Your task to perform on an android device: Search for a tv stand on Ikea Image 0: 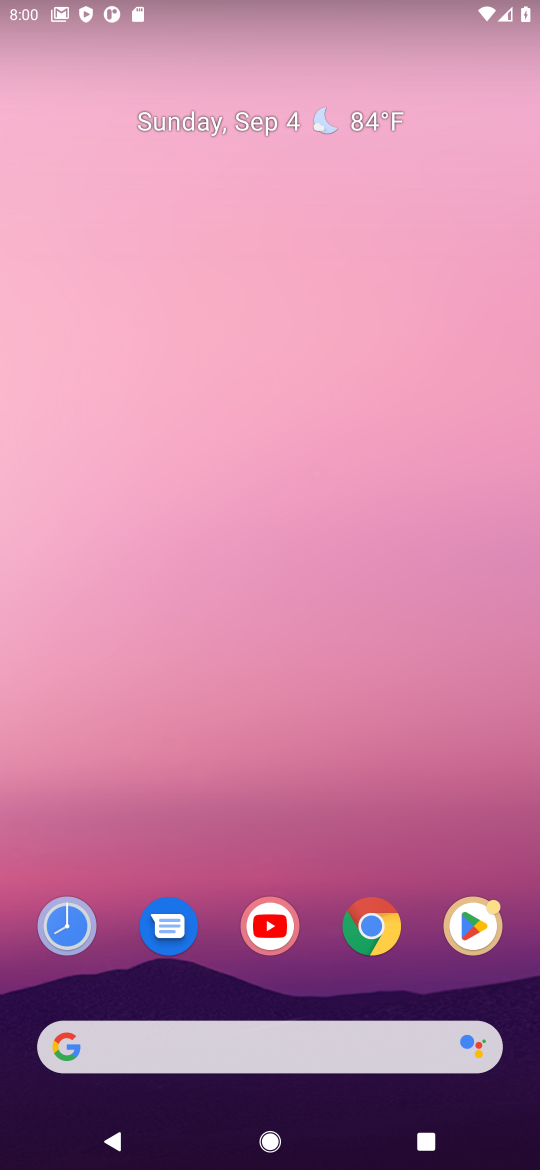
Step 0: click (62, 1037)
Your task to perform on an android device: Search for a tv stand on Ikea Image 1: 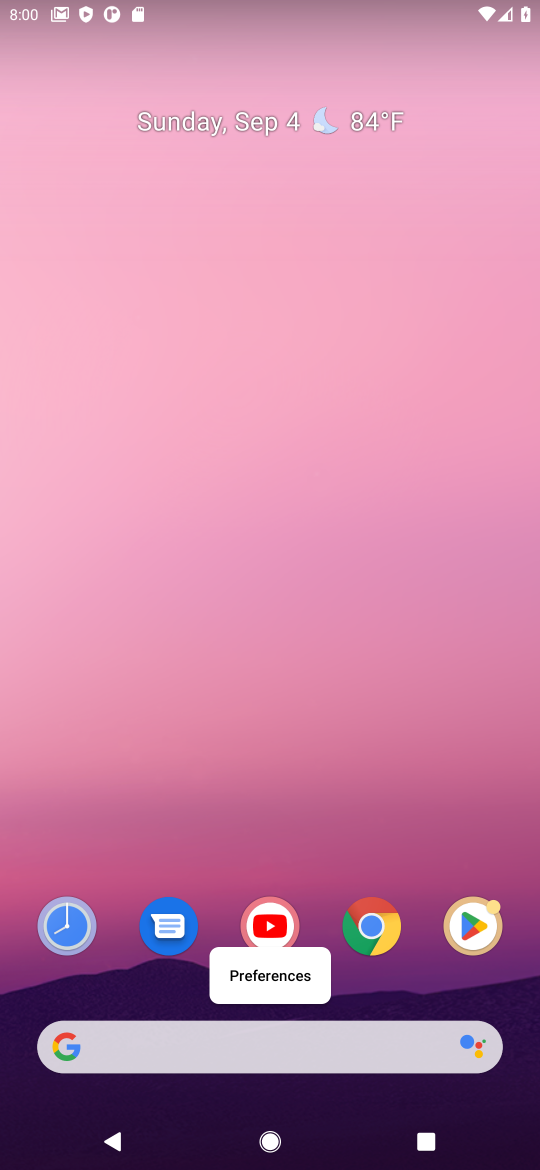
Step 1: click (368, 931)
Your task to perform on an android device: Search for a tv stand on Ikea Image 2: 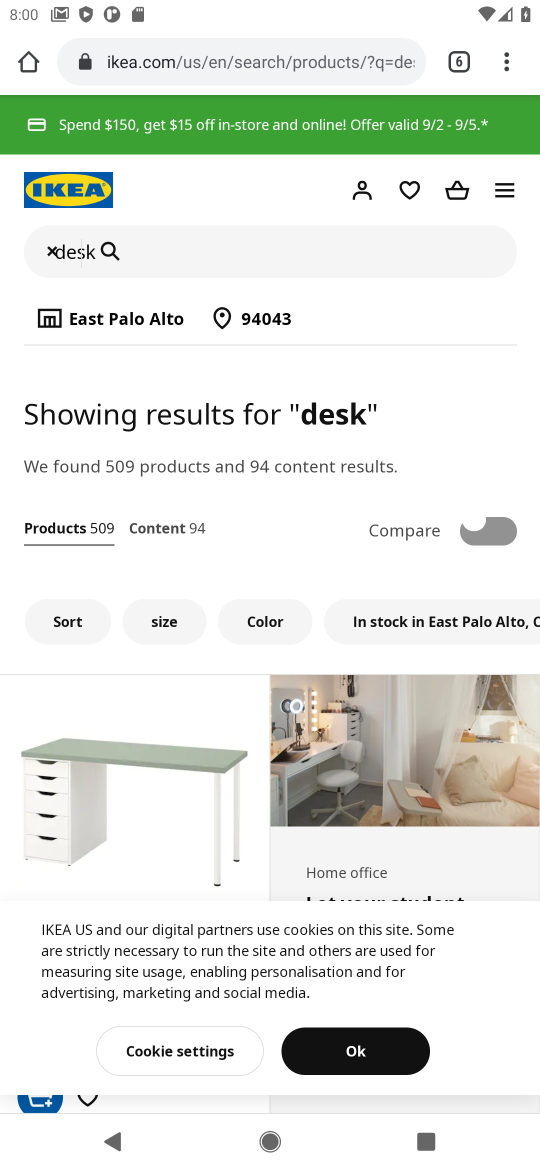
Step 2: click (450, 45)
Your task to perform on an android device: Search for a tv stand on Ikea Image 3: 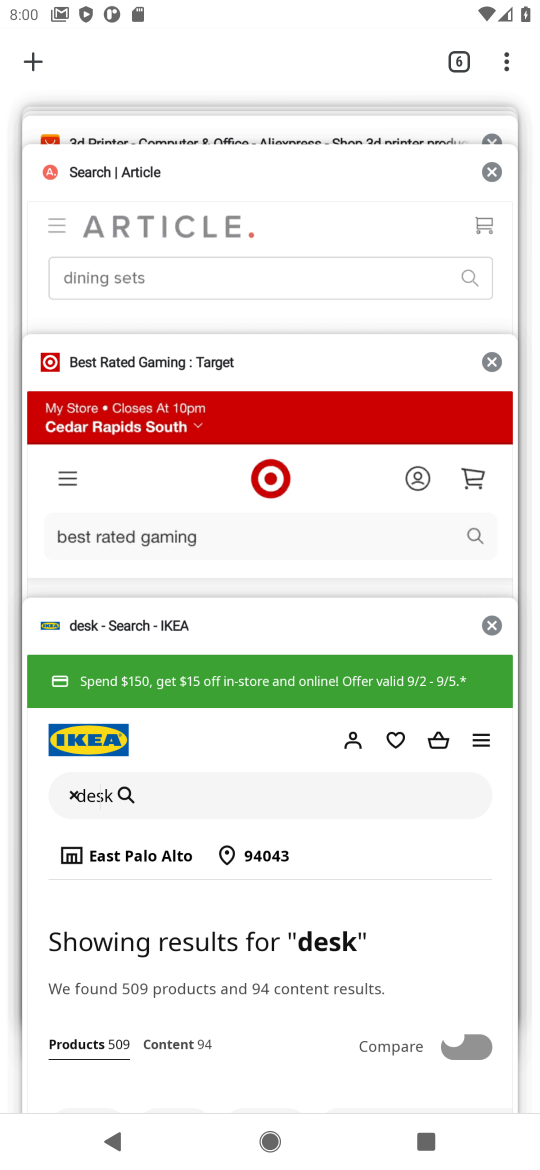
Step 3: click (28, 54)
Your task to perform on an android device: Search for a tv stand on Ikea Image 4: 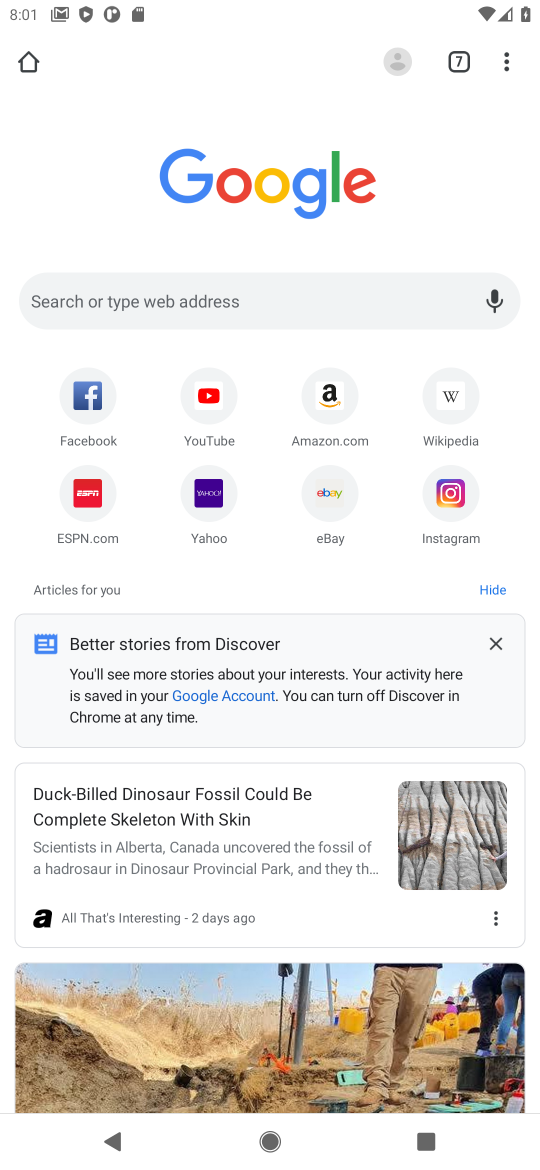
Step 4: click (259, 303)
Your task to perform on an android device: Search for a tv stand on Ikea Image 5: 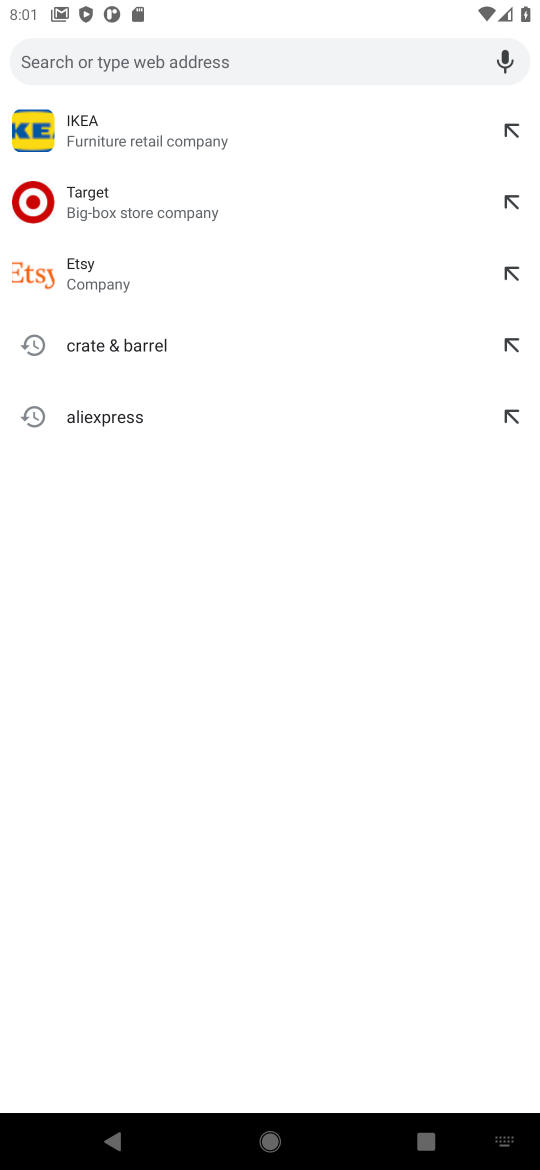
Step 5: click (90, 120)
Your task to perform on an android device: Search for a tv stand on Ikea Image 6: 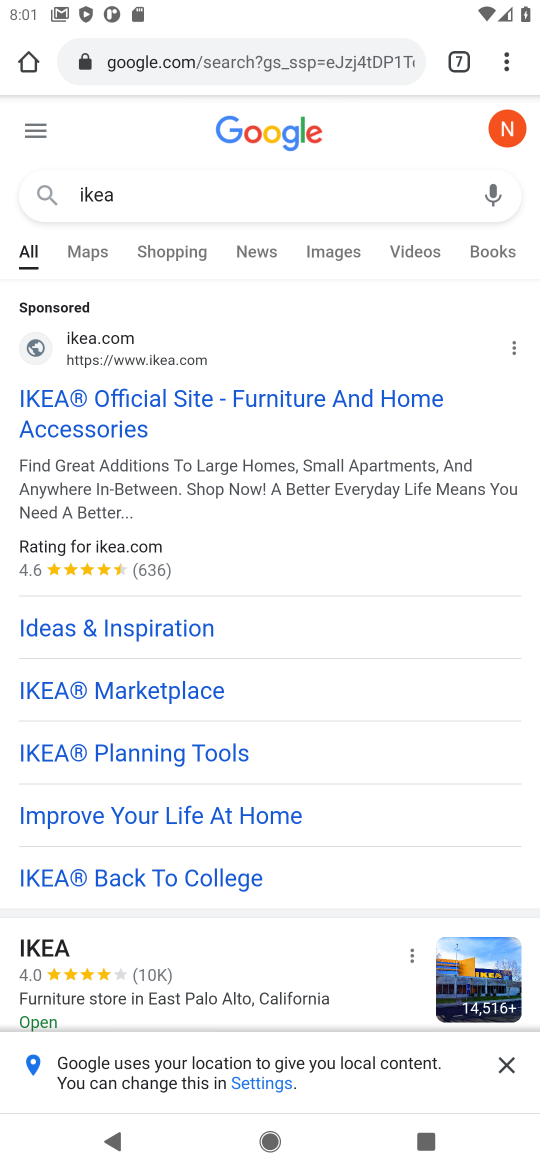
Step 6: click (136, 412)
Your task to perform on an android device: Search for a tv stand on Ikea Image 7: 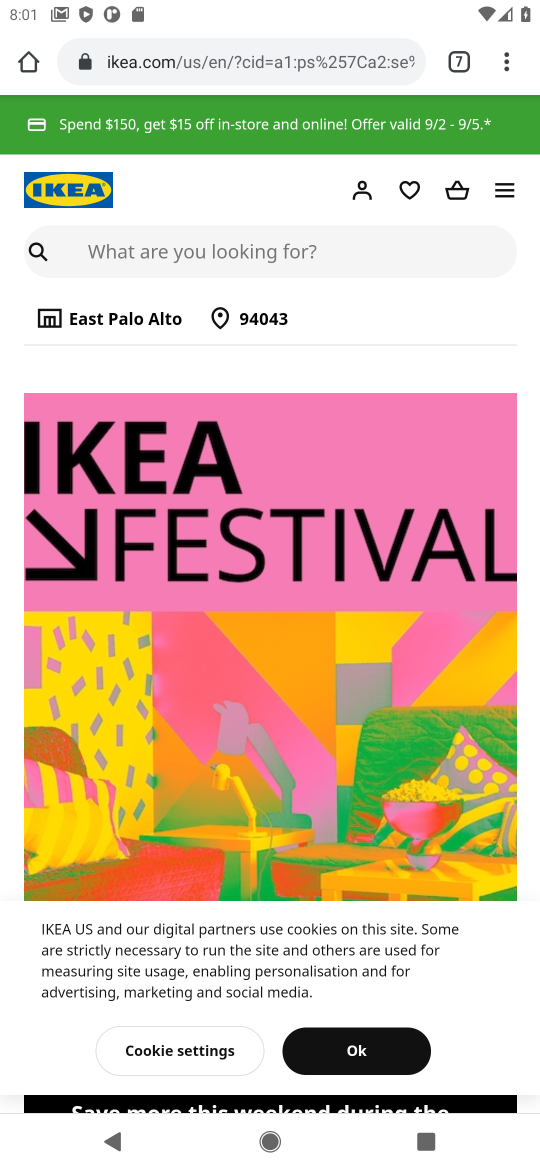
Step 7: click (240, 243)
Your task to perform on an android device: Search for a tv stand on Ikea Image 8: 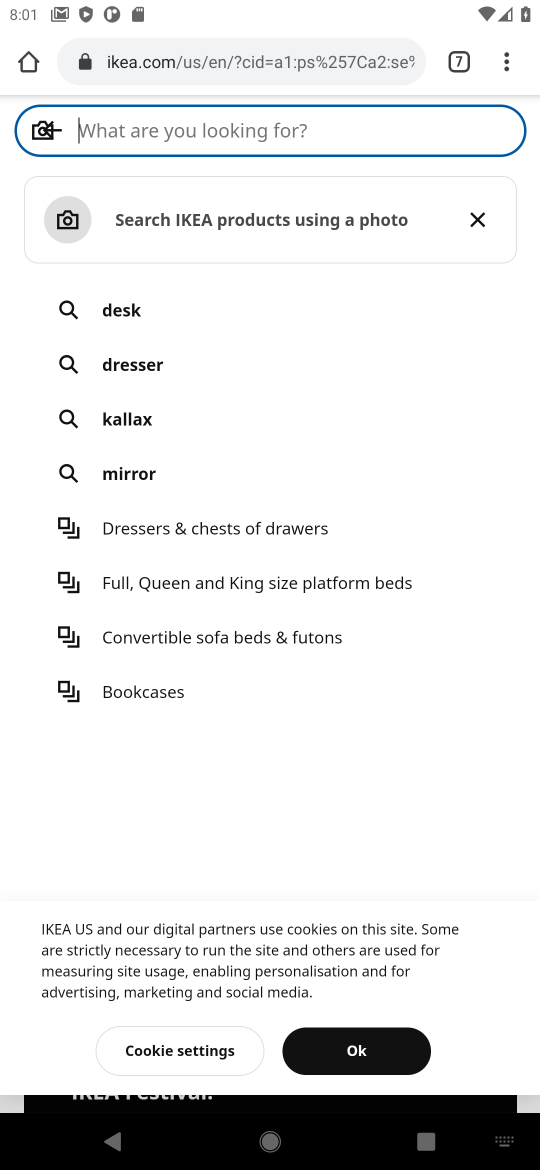
Step 8: type "tvn stand"
Your task to perform on an android device: Search for a tv stand on Ikea Image 9: 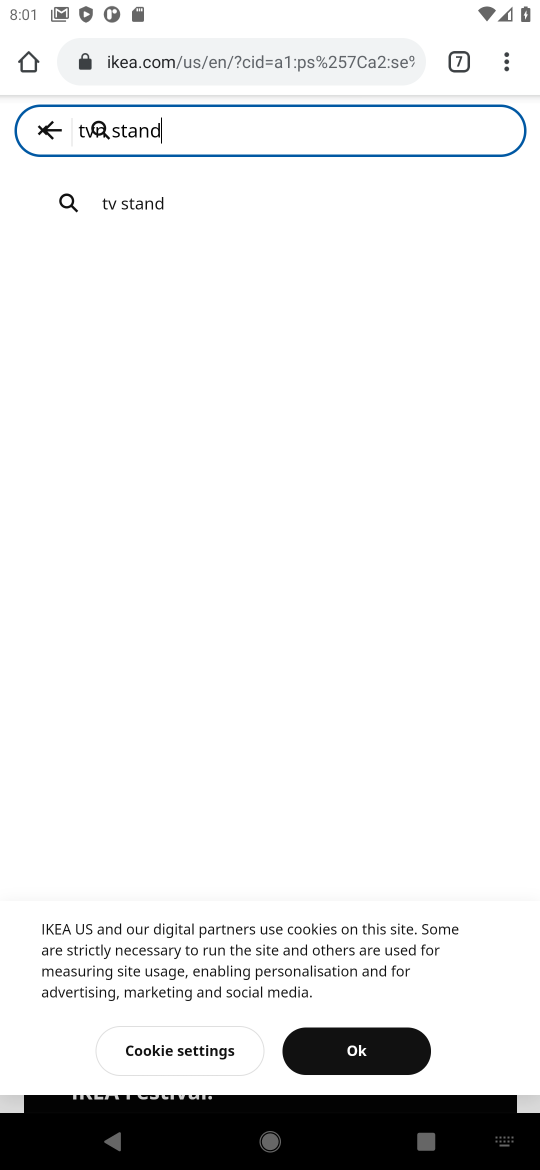
Step 9: click (112, 185)
Your task to perform on an android device: Search for a tv stand on Ikea Image 10: 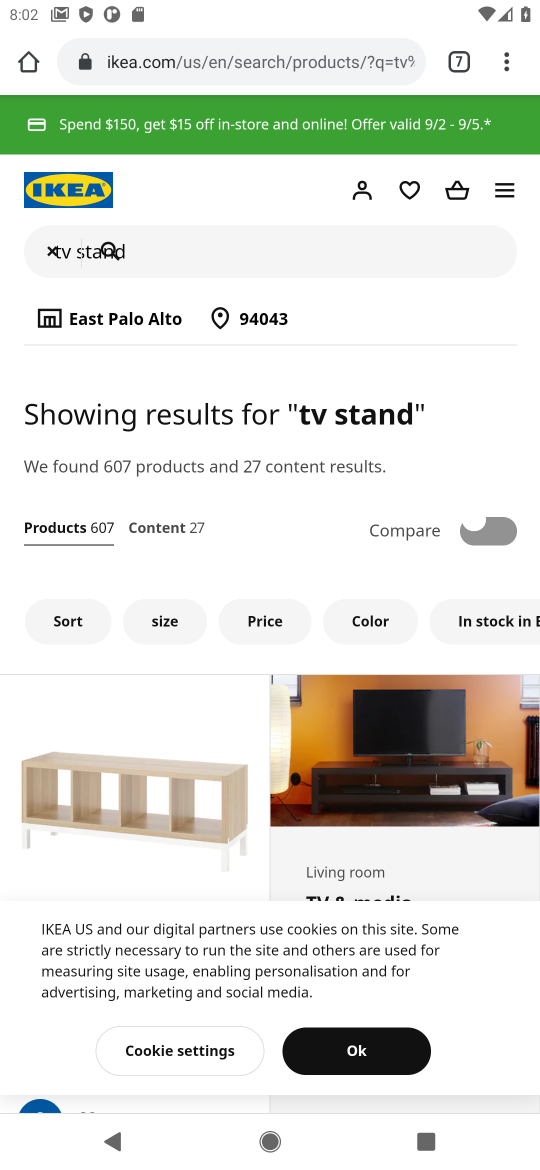
Step 10: task complete